Your task to perform on an android device: Open the Play Movies app and select the watchlist tab. Image 0: 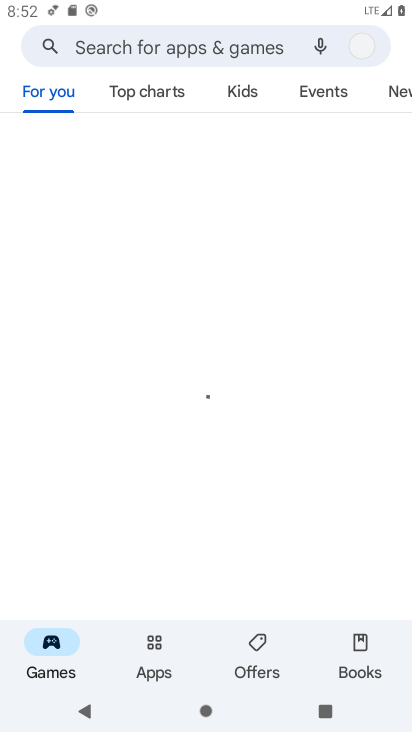
Step 0: press home button
Your task to perform on an android device: Open the Play Movies app and select the watchlist tab. Image 1: 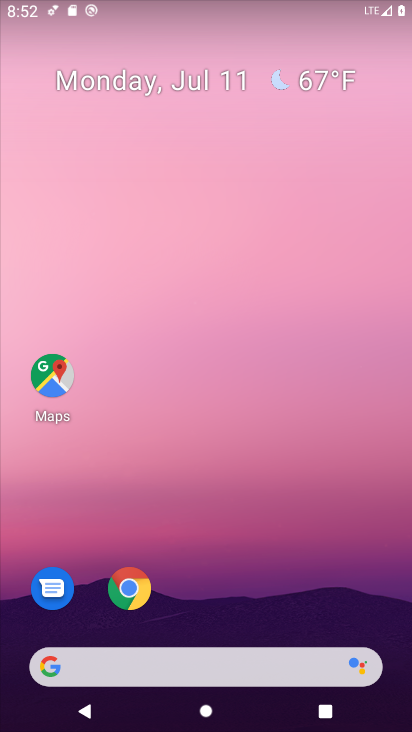
Step 1: drag from (344, 570) to (405, 133)
Your task to perform on an android device: Open the Play Movies app and select the watchlist tab. Image 2: 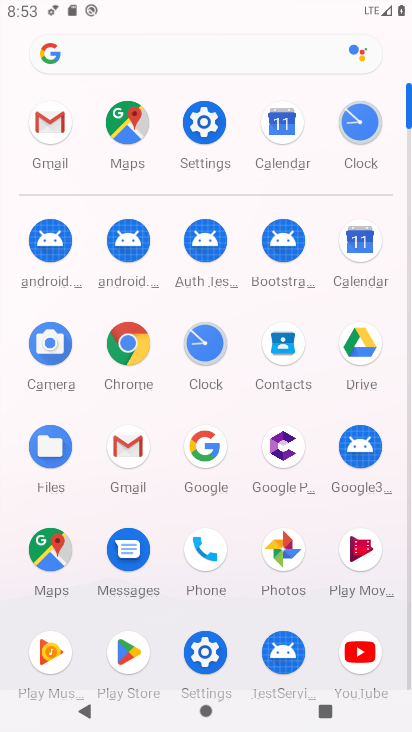
Step 2: click (352, 555)
Your task to perform on an android device: Open the Play Movies app and select the watchlist tab. Image 3: 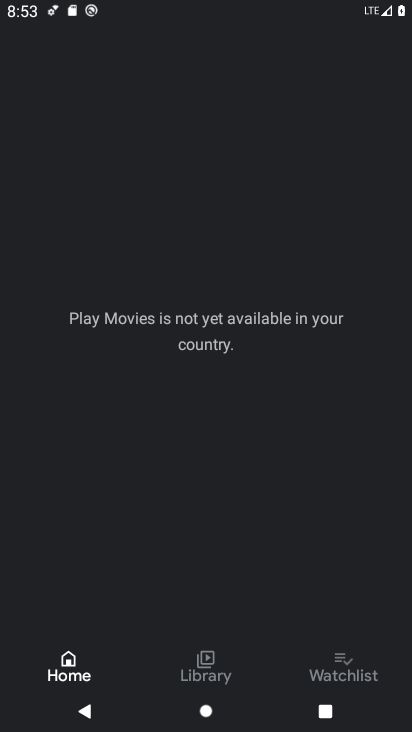
Step 3: click (349, 679)
Your task to perform on an android device: Open the Play Movies app and select the watchlist tab. Image 4: 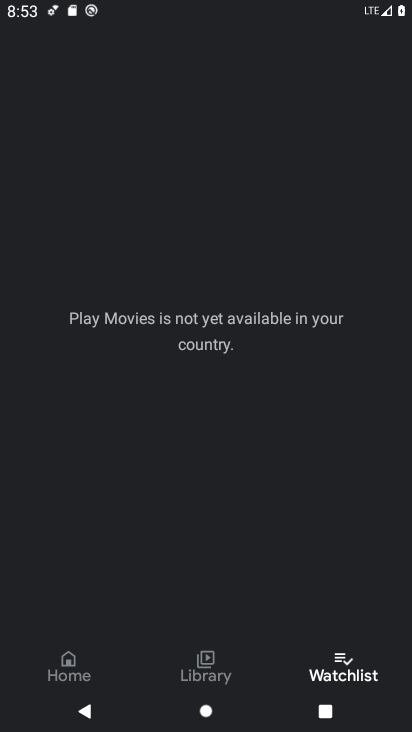
Step 4: task complete